Your task to perform on an android device: find snoozed emails in the gmail app Image 0: 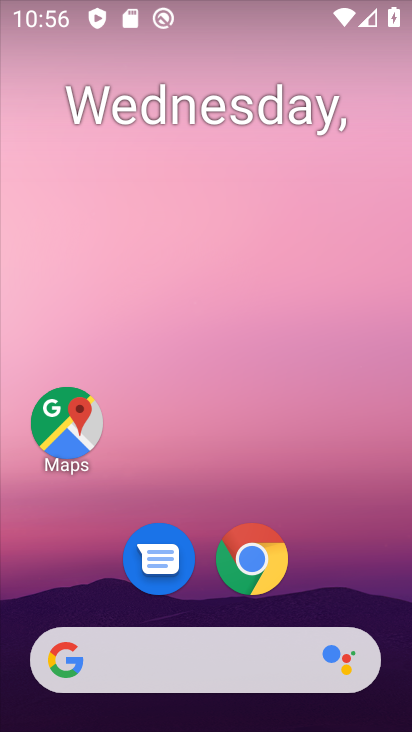
Step 0: drag from (353, 600) to (307, 265)
Your task to perform on an android device: find snoozed emails in the gmail app Image 1: 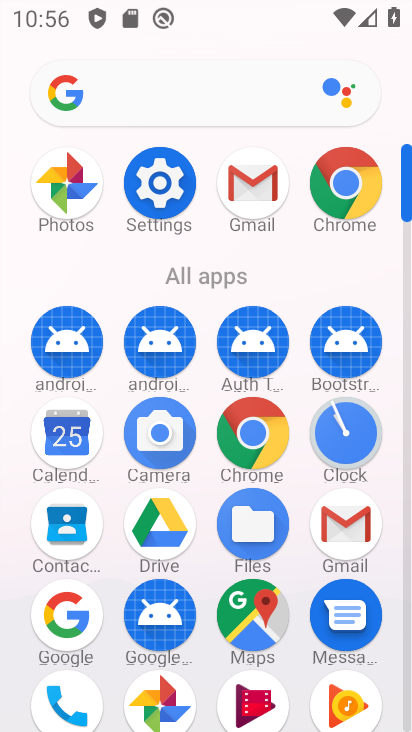
Step 1: click (267, 185)
Your task to perform on an android device: find snoozed emails in the gmail app Image 2: 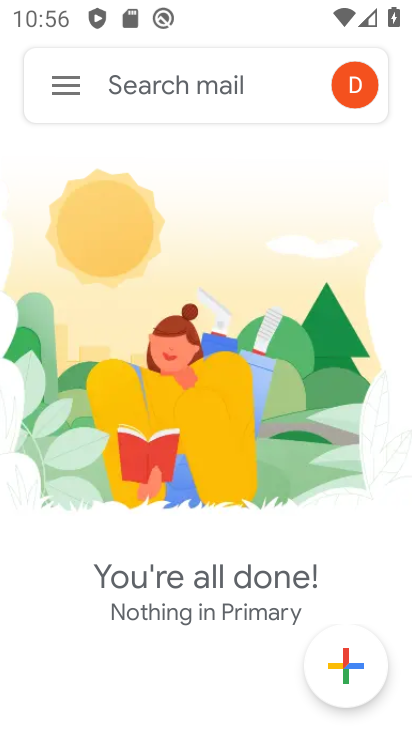
Step 2: click (67, 78)
Your task to perform on an android device: find snoozed emails in the gmail app Image 3: 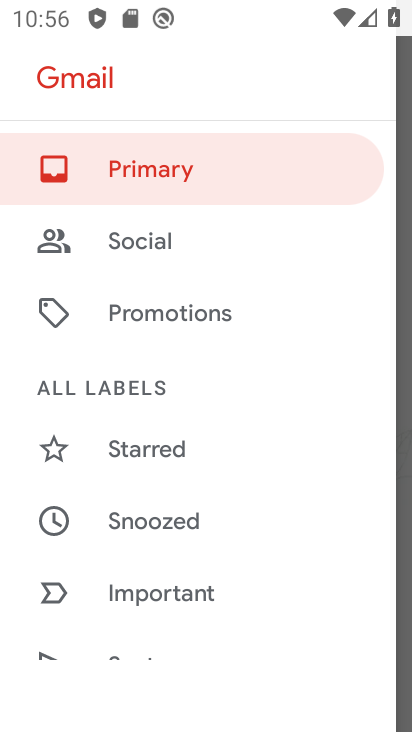
Step 3: click (155, 528)
Your task to perform on an android device: find snoozed emails in the gmail app Image 4: 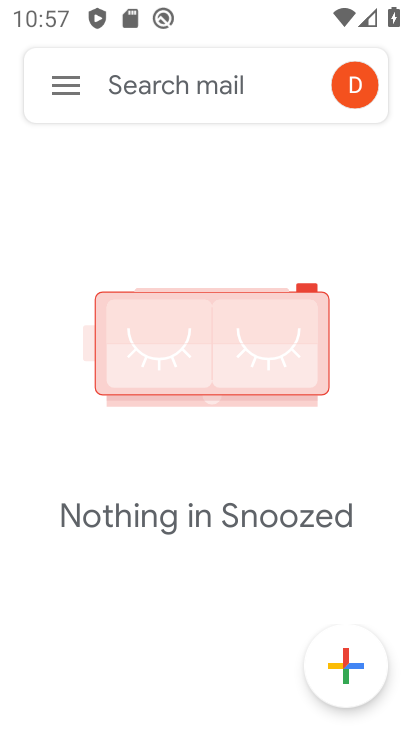
Step 4: task complete